Your task to perform on an android device: Is it going to rain this weekend? Image 0: 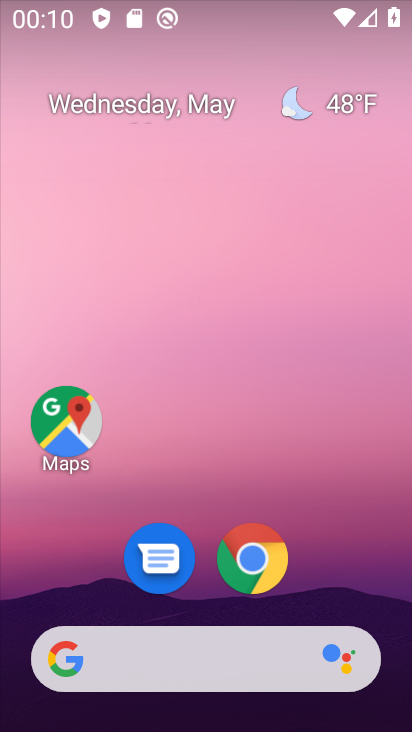
Step 0: drag from (400, 576) to (362, 192)
Your task to perform on an android device: Is it going to rain this weekend? Image 1: 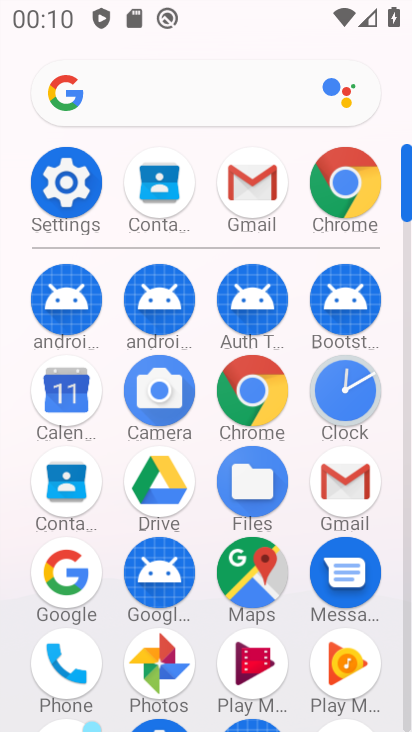
Step 1: click (264, 386)
Your task to perform on an android device: Is it going to rain this weekend? Image 2: 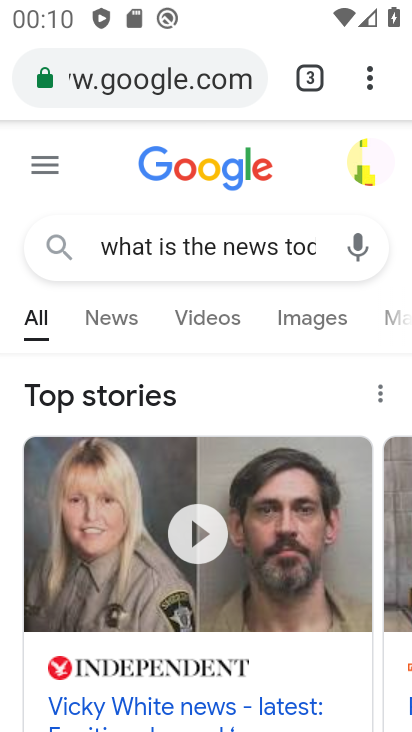
Step 2: click (230, 76)
Your task to perform on an android device: Is it going to rain this weekend? Image 3: 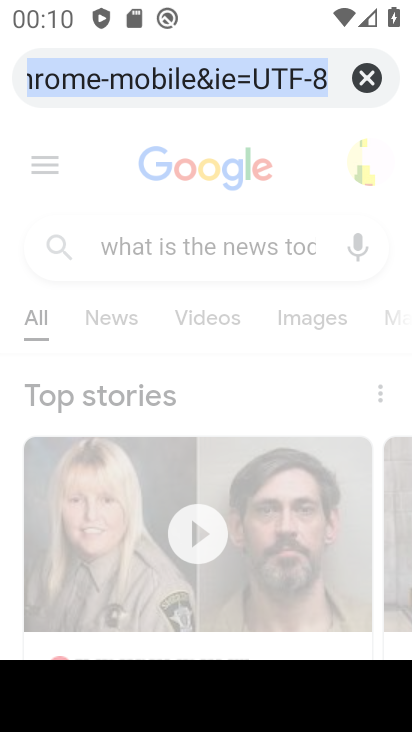
Step 3: click (368, 80)
Your task to perform on an android device: Is it going to rain this weekend? Image 4: 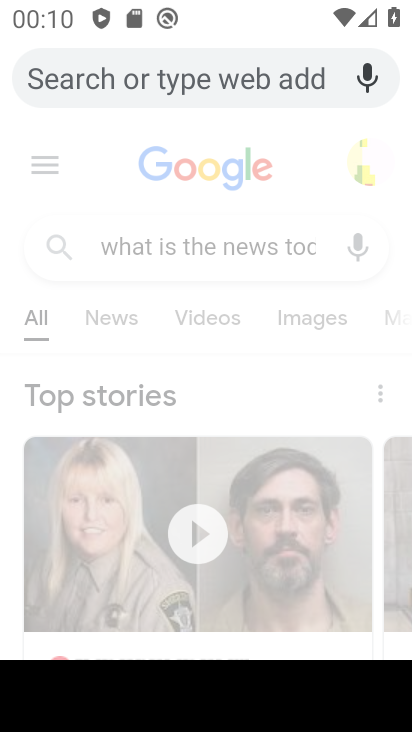
Step 4: type "is it going to rain this weekend"
Your task to perform on an android device: Is it going to rain this weekend? Image 5: 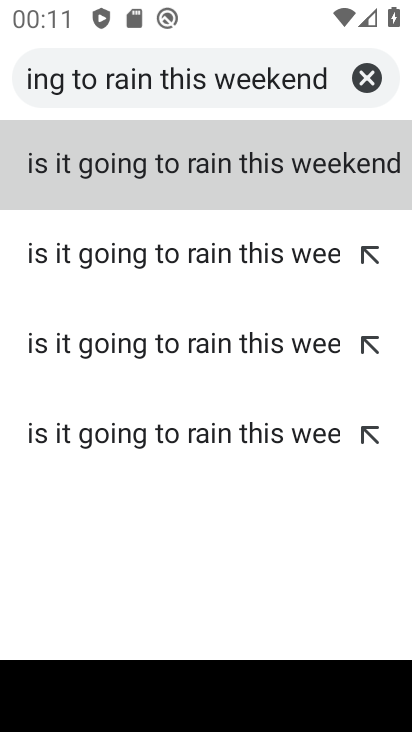
Step 5: click (184, 162)
Your task to perform on an android device: Is it going to rain this weekend? Image 6: 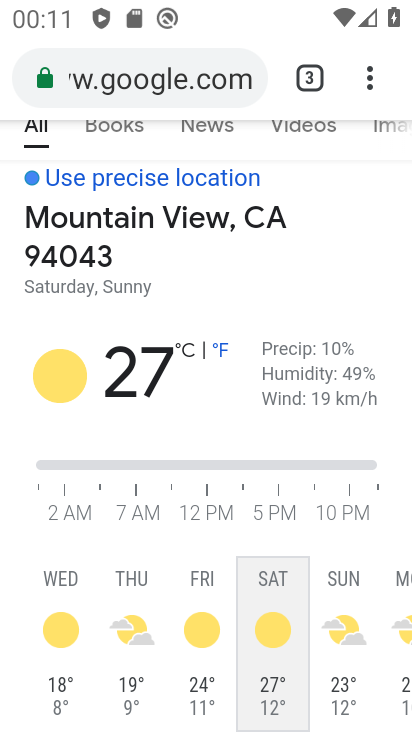
Step 6: task complete